Your task to perform on an android device: check google app version Image 0: 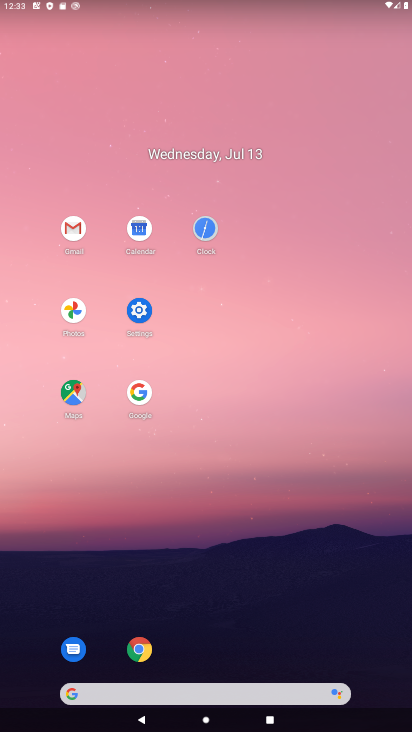
Step 0: click (143, 647)
Your task to perform on an android device: check google app version Image 1: 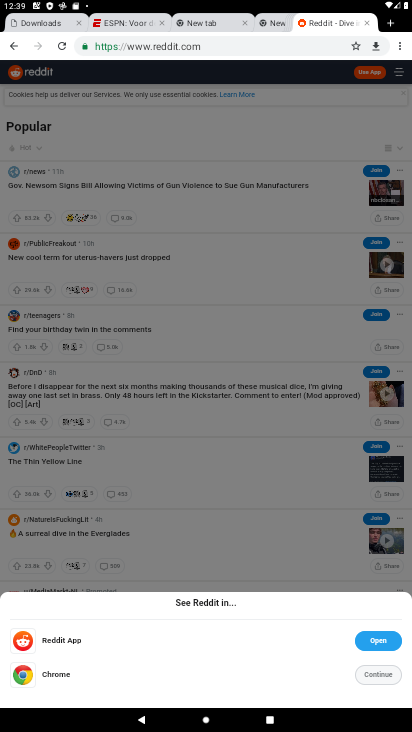
Step 1: press home button
Your task to perform on an android device: check google app version Image 2: 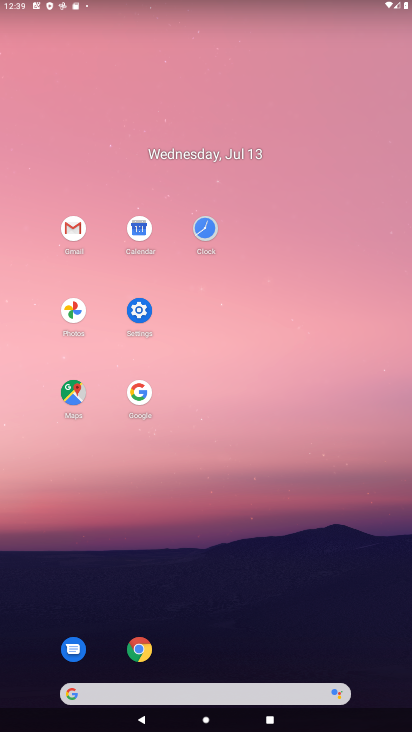
Step 2: drag from (253, 533) to (266, 159)
Your task to perform on an android device: check google app version Image 3: 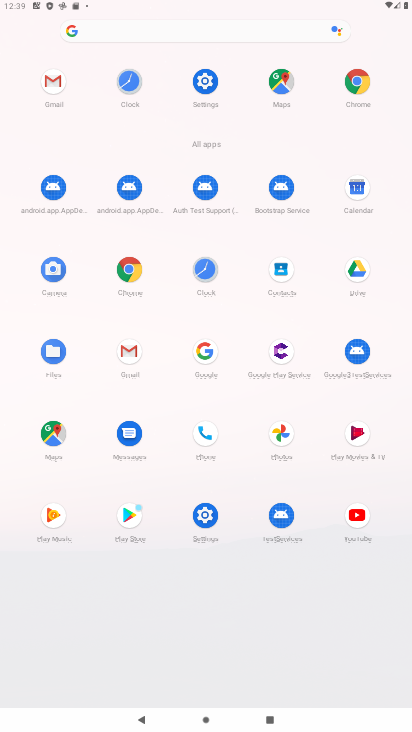
Step 3: click (208, 355)
Your task to perform on an android device: check google app version Image 4: 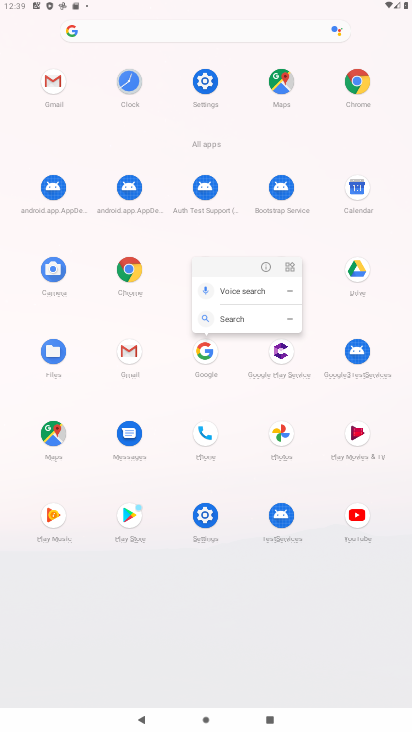
Step 4: click (261, 265)
Your task to perform on an android device: check google app version Image 5: 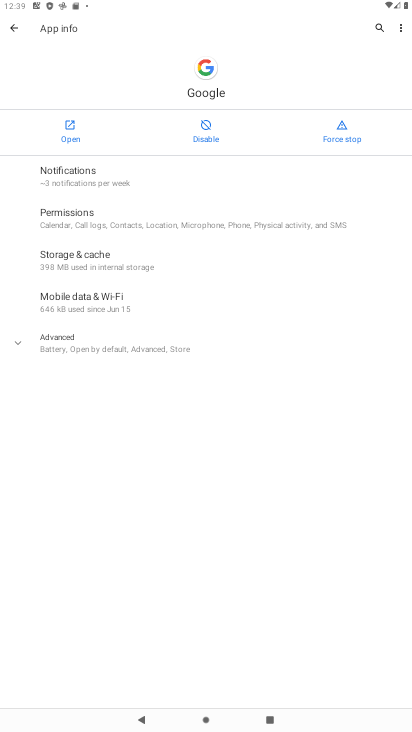
Step 5: click (185, 357)
Your task to perform on an android device: check google app version Image 6: 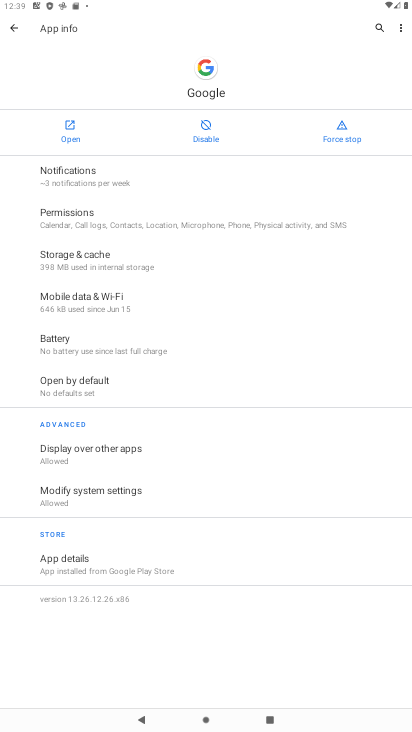
Step 6: task complete